Your task to perform on an android device: Show me recent news Image 0: 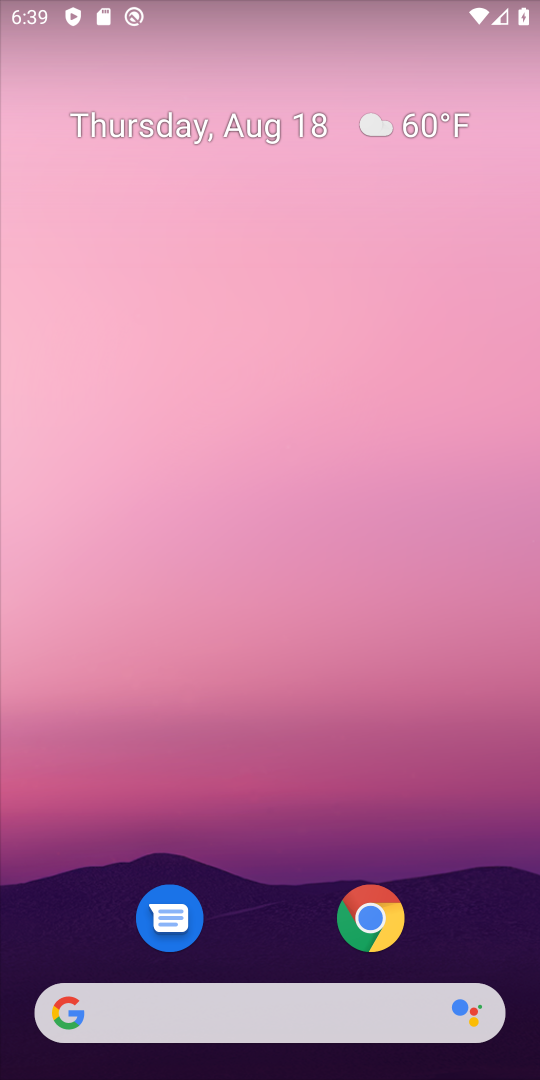
Step 0: press home button
Your task to perform on an android device: Show me recent news Image 1: 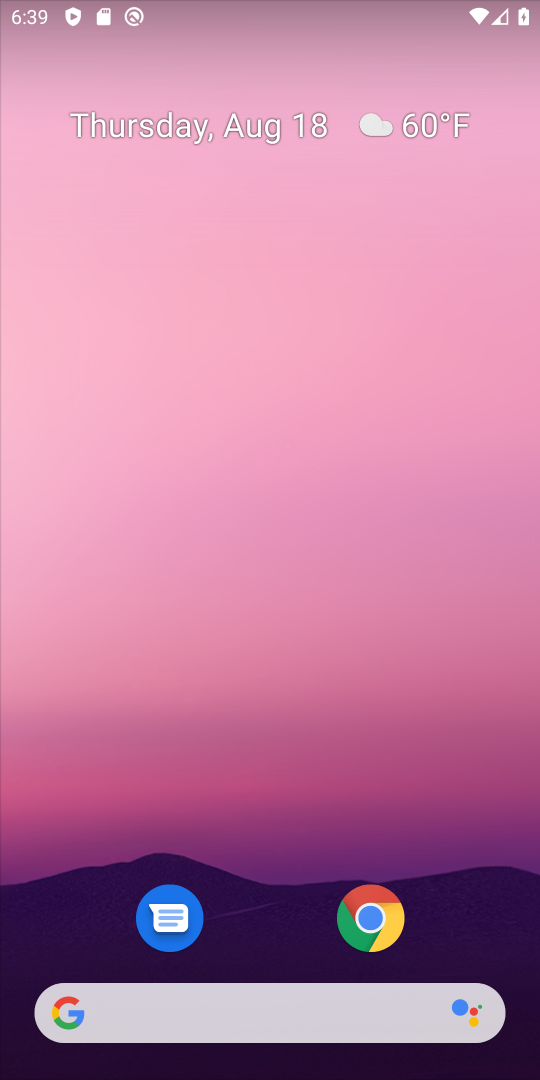
Step 1: click (67, 1026)
Your task to perform on an android device: Show me recent news Image 2: 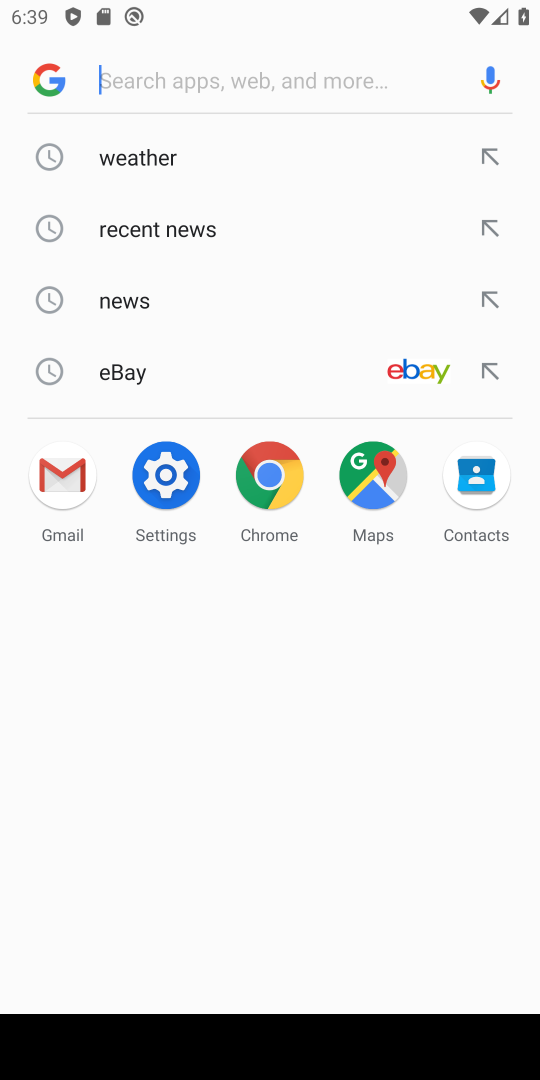
Step 2: click (140, 231)
Your task to perform on an android device: Show me recent news Image 3: 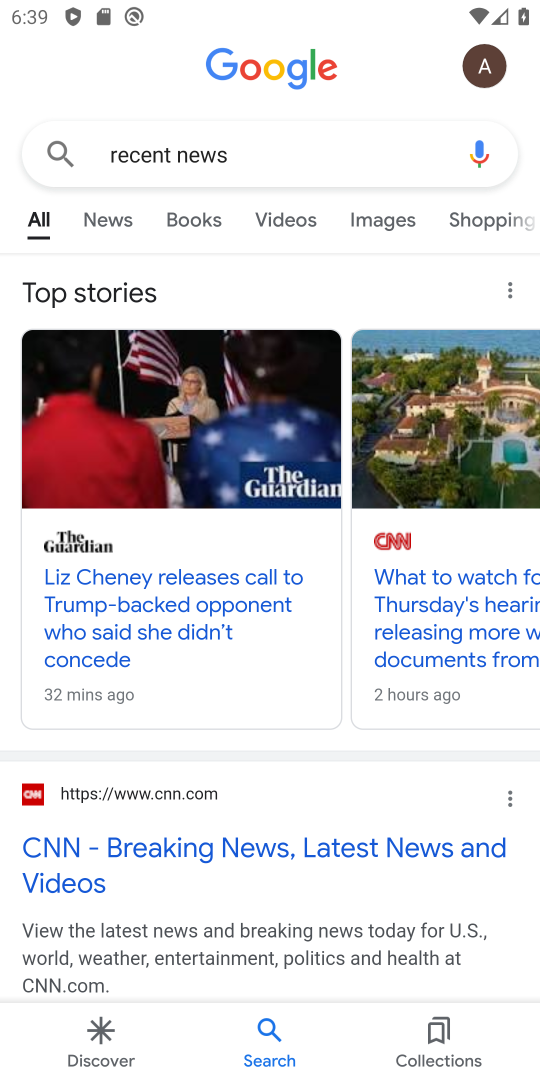
Step 3: task complete